Your task to perform on an android device: Go to eBay Image 0: 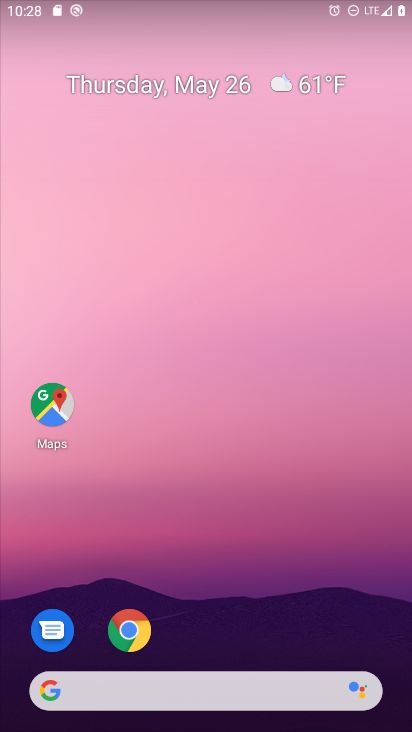
Step 0: drag from (240, 657) to (371, 10)
Your task to perform on an android device: Go to eBay Image 1: 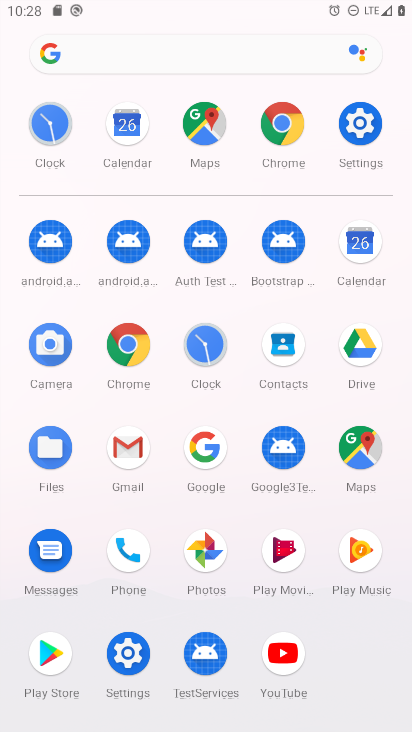
Step 1: click (142, 341)
Your task to perform on an android device: Go to eBay Image 2: 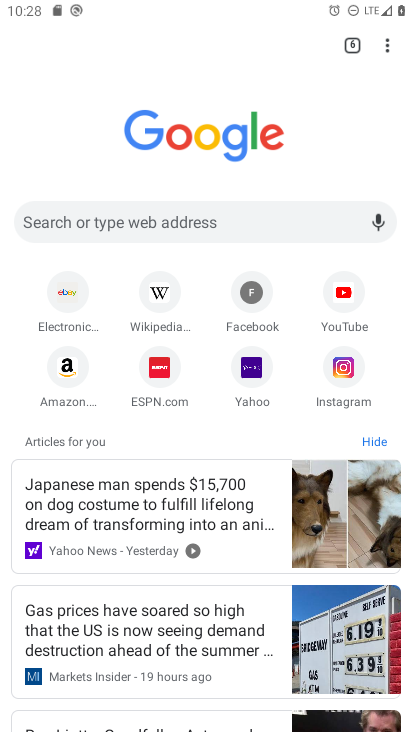
Step 2: click (74, 283)
Your task to perform on an android device: Go to eBay Image 3: 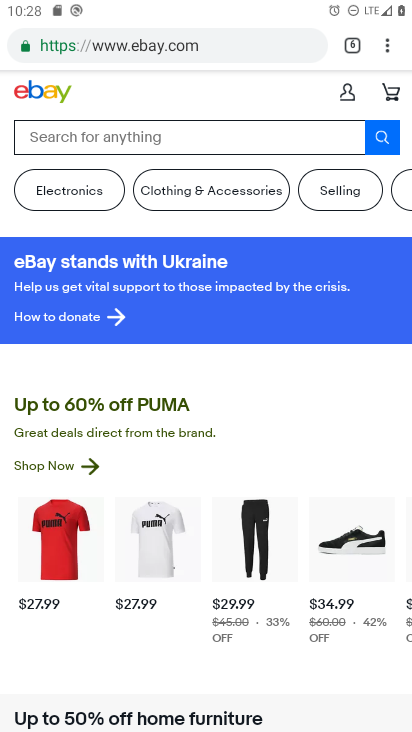
Step 3: task complete